Your task to perform on an android device: open chrome and create a bookmark for the current page Image 0: 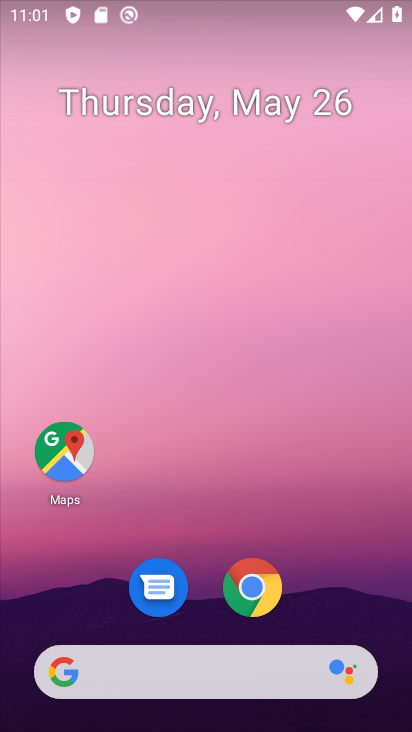
Step 0: press home button
Your task to perform on an android device: open chrome and create a bookmark for the current page Image 1: 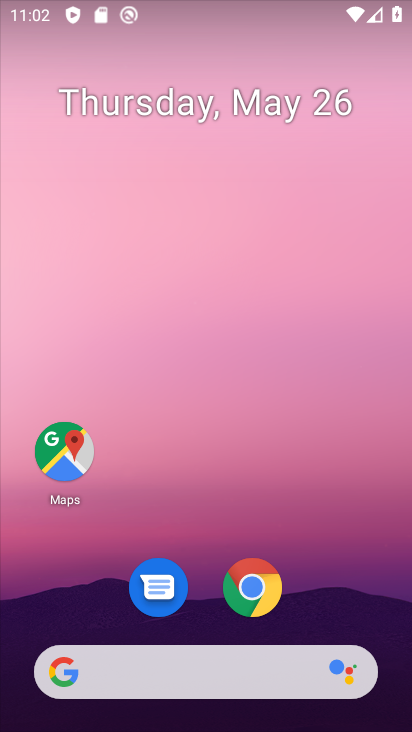
Step 1: drag from (278, 624) to (410, 48)
Your task to perform on an android device: open chrome and create a bookmark for the current page Image 2: 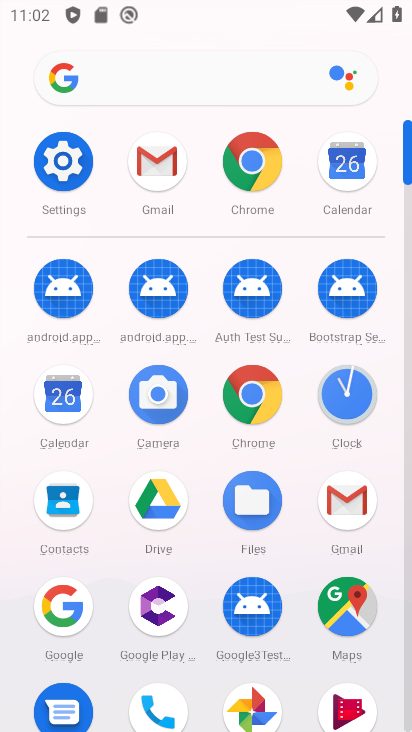
Step 2: click (241, 382)
Your task to perform on an android device: open chrome and create a bookmark for the current page Image 3: 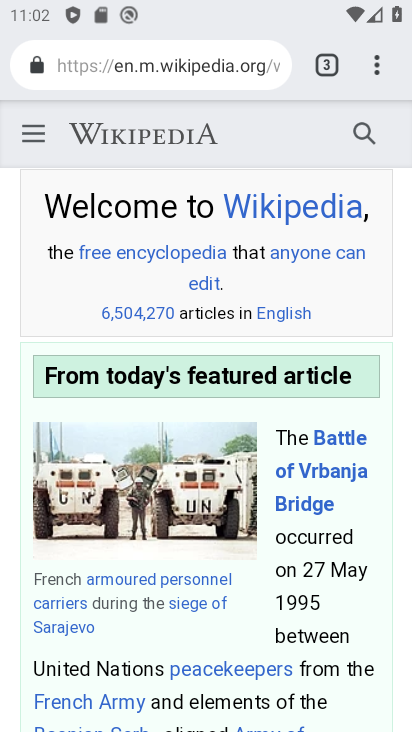
Step 3: click (377, 72)
Your task to perform on an android device: open chrome and create a bookmark for the current page Image 4: 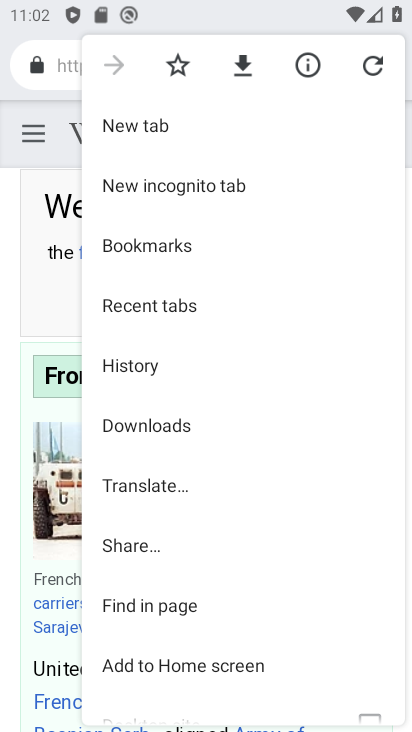
Step 4: click (165, 244)
Your task to perform on an android device: open chrome and create a bookmark for the current page Image 5: 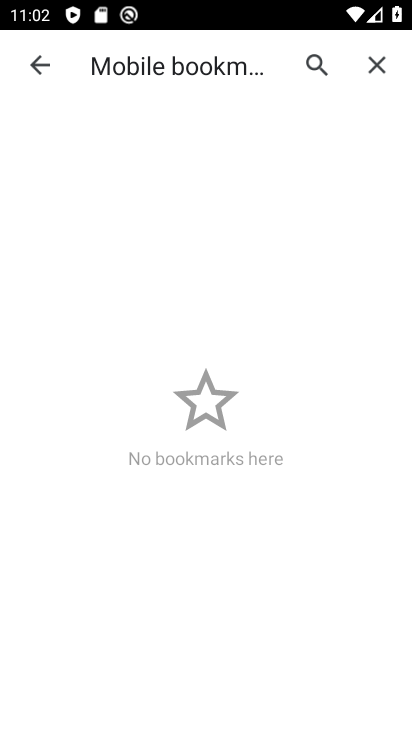
Step 5: task complete